Your task to perform on an android device: turn off location Image 0: 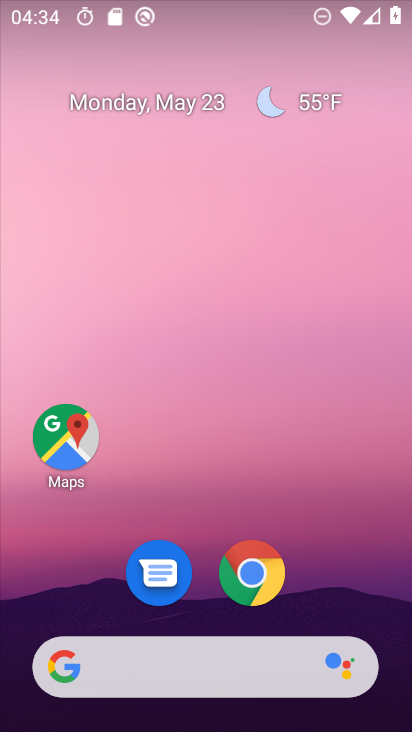
Step 0: drag from (311, 588) to (312, 61)
Your task to perform on an android device: turn off location Image 1: 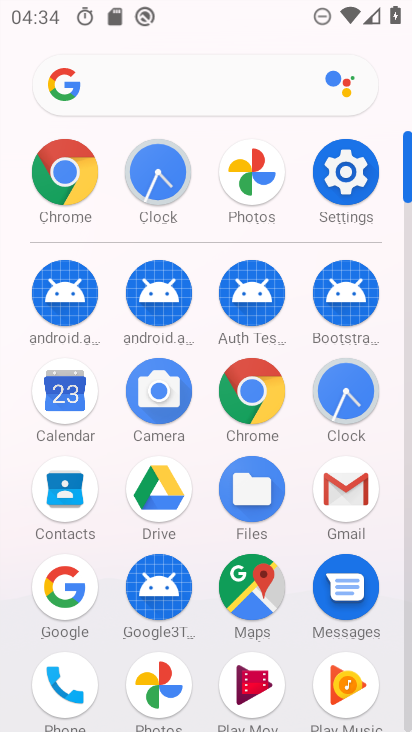
Step 1: click (355, 181)
Your task to perform on an android device: turn off location Image 2: 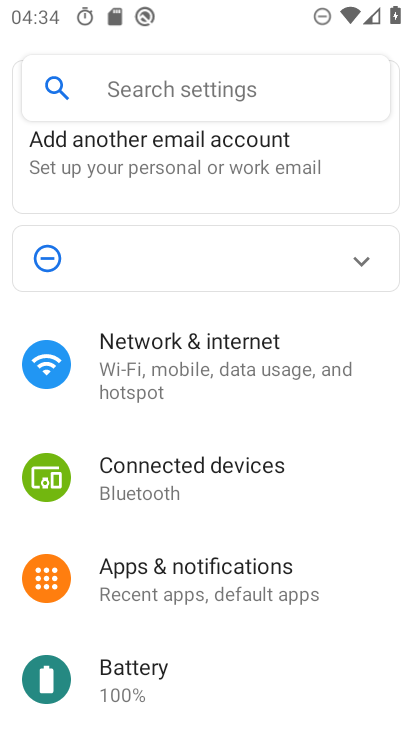
Step 2: drag from (233, 637) to (236, 292)
Your task to perform on an android device: turn off location Image 3: 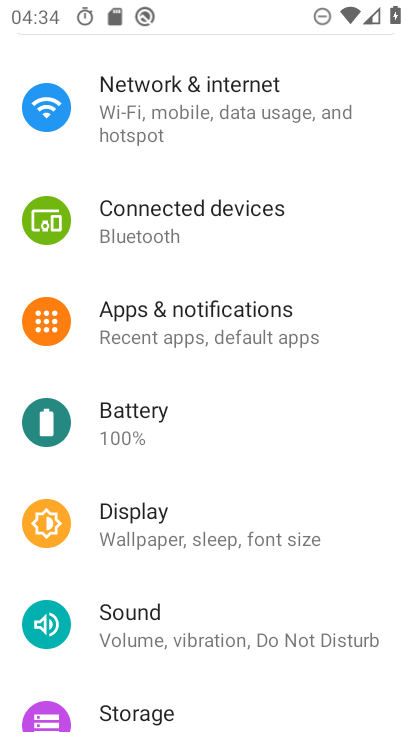
Step 3: drag from (245, 592) to (251, 296)
Your task to perform on an android device: turn off location Image 4: 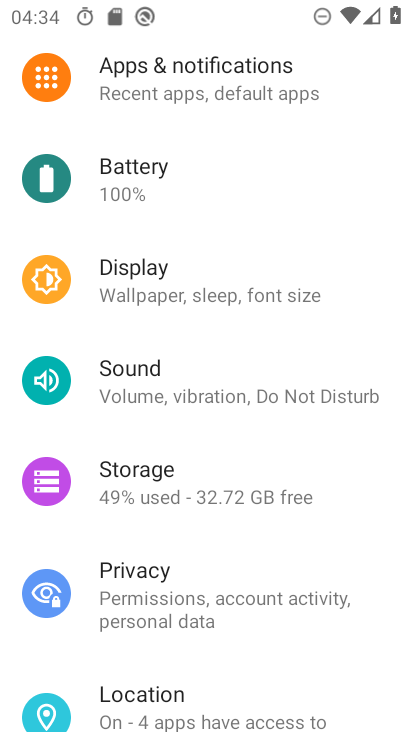
Step 4: click (210, 693)
Your task to perform on an android device: turn off location Image 5: 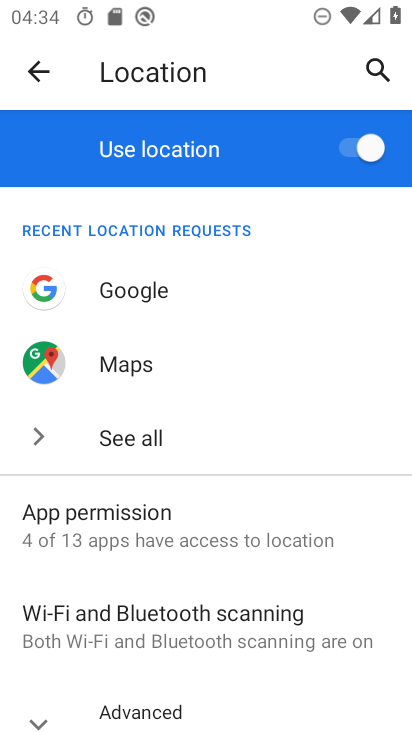
Step 5: click (352, 141)
Your task to perform on an android device: turn off location Image 6: 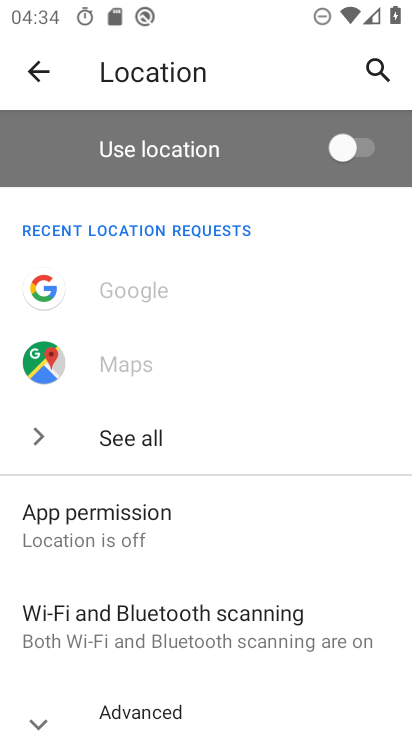
Step 6: task complete